Your task to perform on an android device: Open wifi settings Image 0: 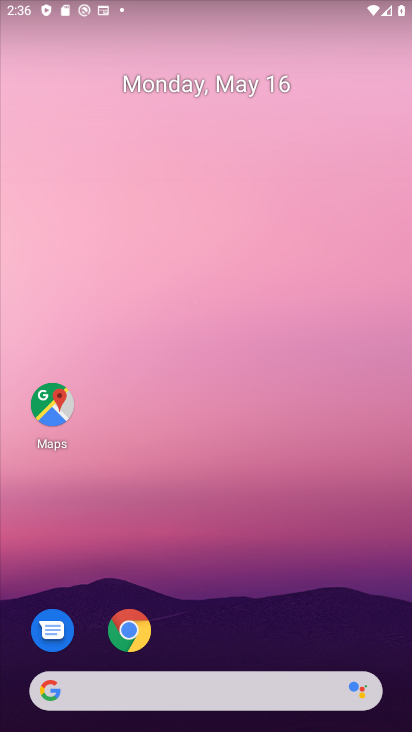
Step 0: press home button
Your task to perform on an android device: Open wifi settings Image 1: 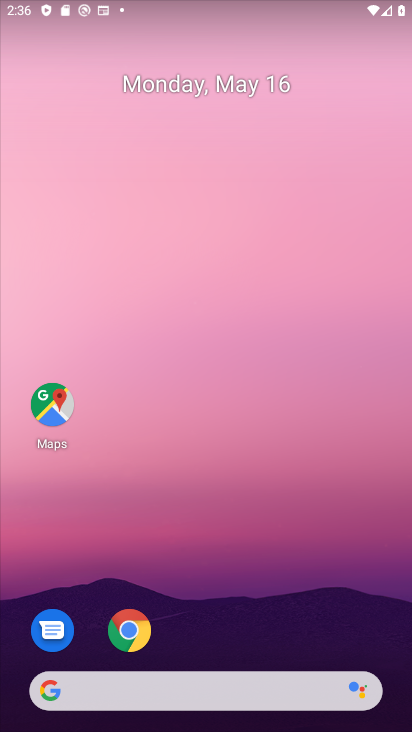
Step 1: drag from (221, 632) to (250, 130)
Your task to perform on an android device: Open wifi settings Image 2: 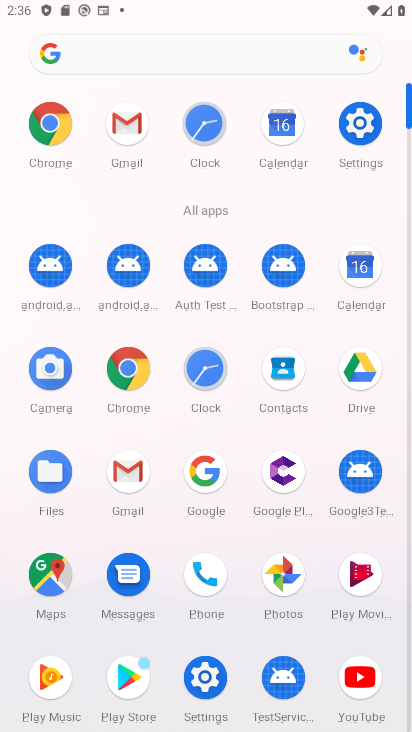
Step 2: click (353, 125)
Your task to perform on an android device: Open wifi settings Image 3: 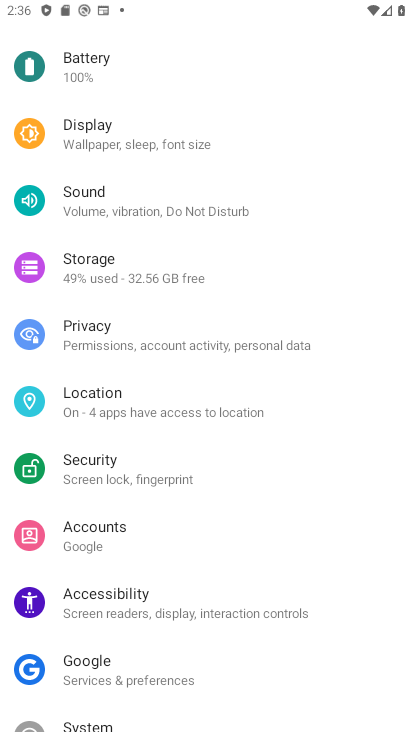
Step 3: drag from (131, 94) to (167, 632)
Your task to perform on an android device: Open wifi settings Image 4: 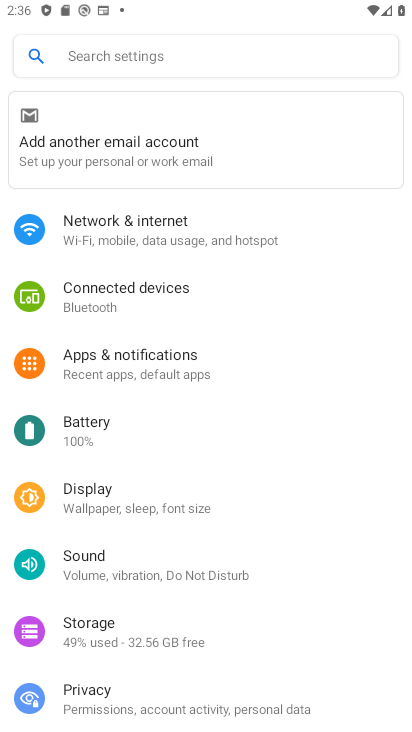
Step 4: click (133, 226)
Your task to perform on an android device: Open wifi settings Image 5: 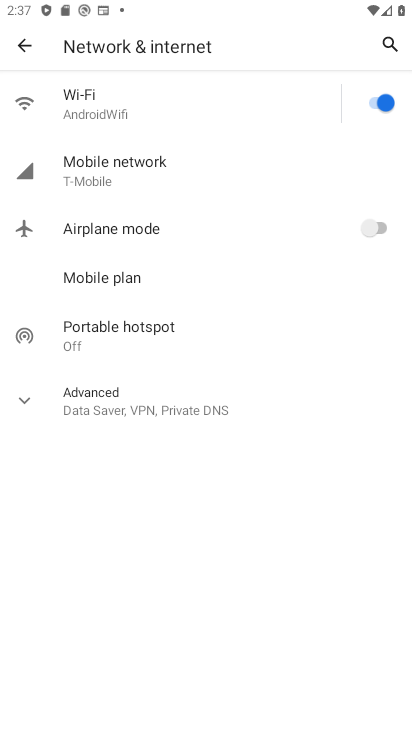
Step 5: click (75, 398)
Your task to perform on an android device: Open wifi settings Image 6: 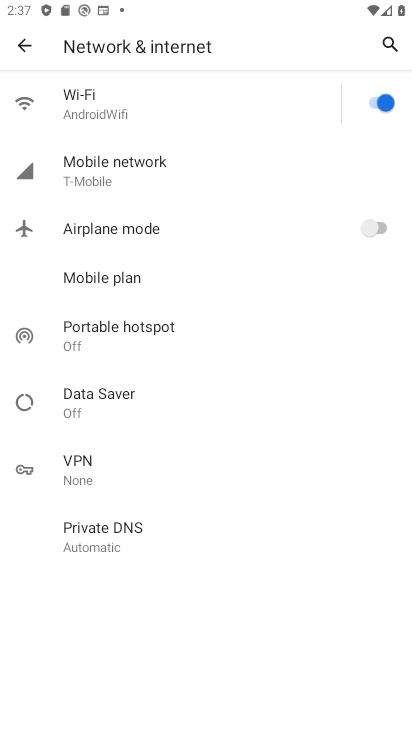
Step 6: click (189, 109)
Your task to perform on an android device: Open wifi settings Image 7: 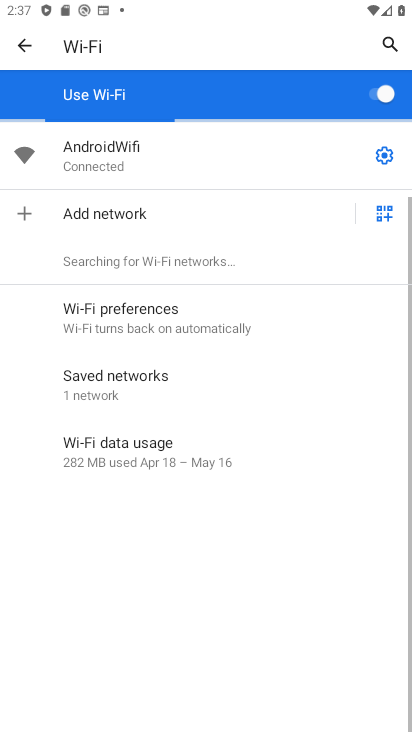
Step 7: task complete